Your task to perform on an android device: open app "PlayWell" Image 0: 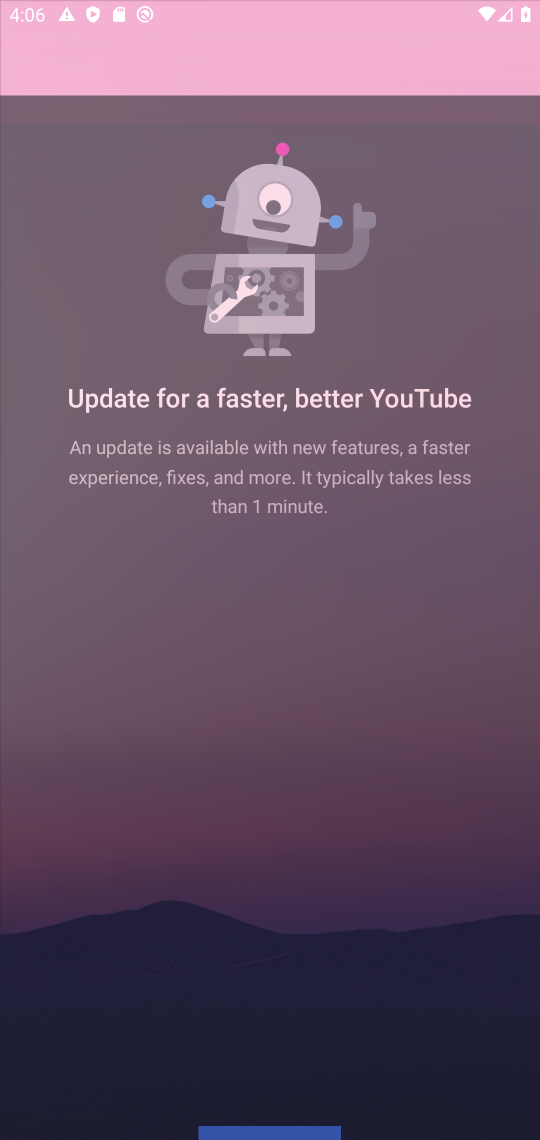
Step 0: drag from (242, 466) to (242, 134)
Your task to perform on an android device: open app "PlayWell" Image 1: 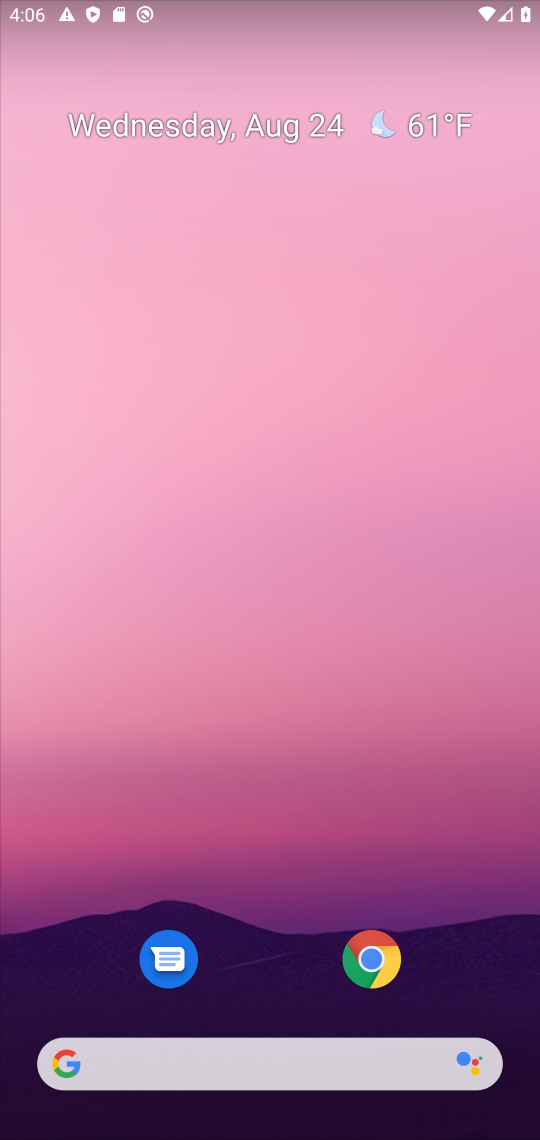
Step 1: drag from (304, 1025) to (267, 200)
Your task to perform on an android device: open app "PlayWell" Image 2: 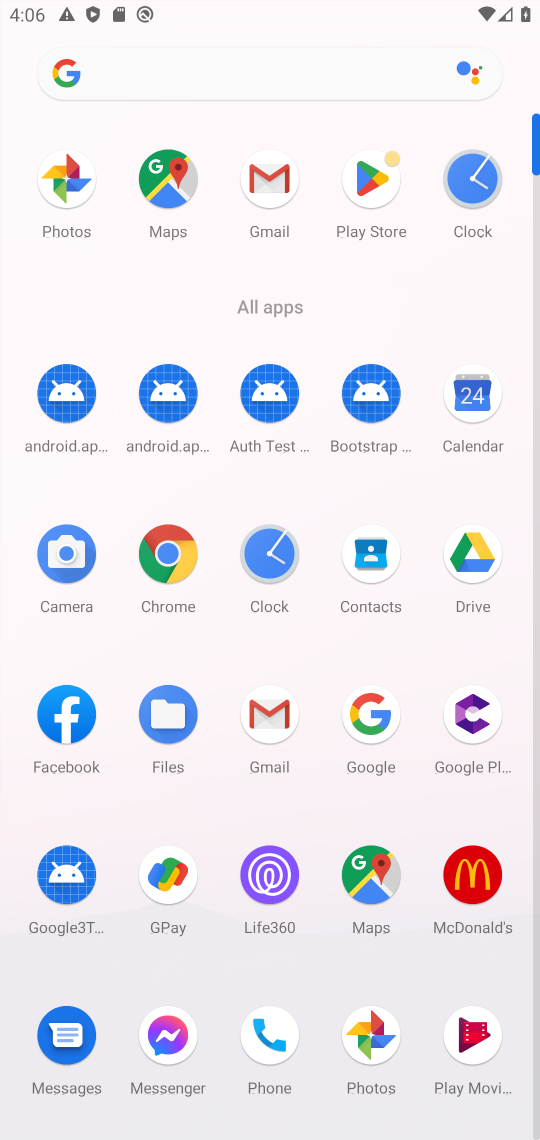
Step 2: click (347, 212)
Your task to perform on an android device: open app "PlayWell" Image 3: 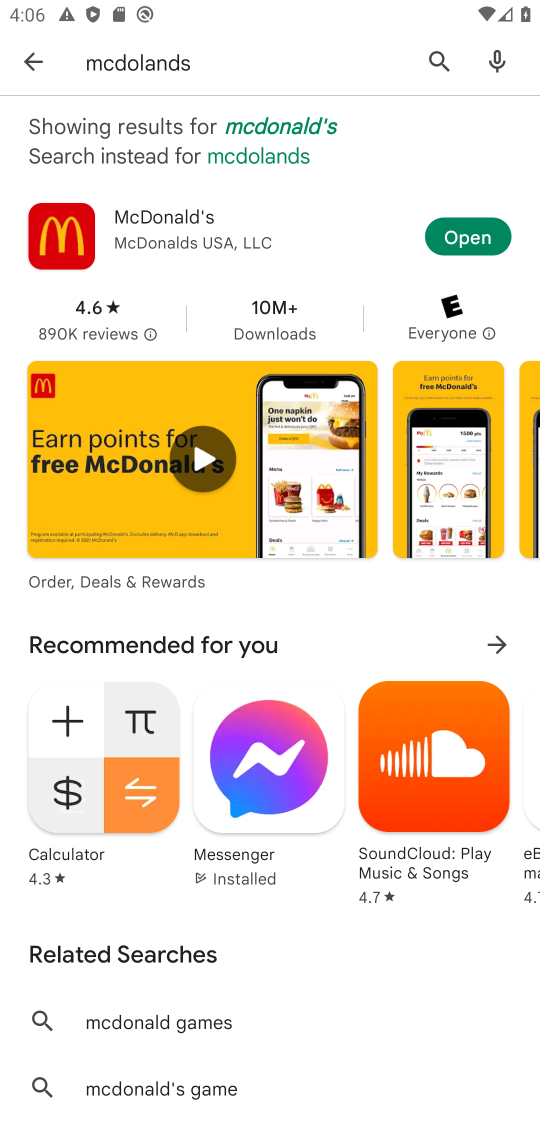
Step 3: click (441, 58)
Your task to perform on an android device: open app "PlayWell" Image 4: 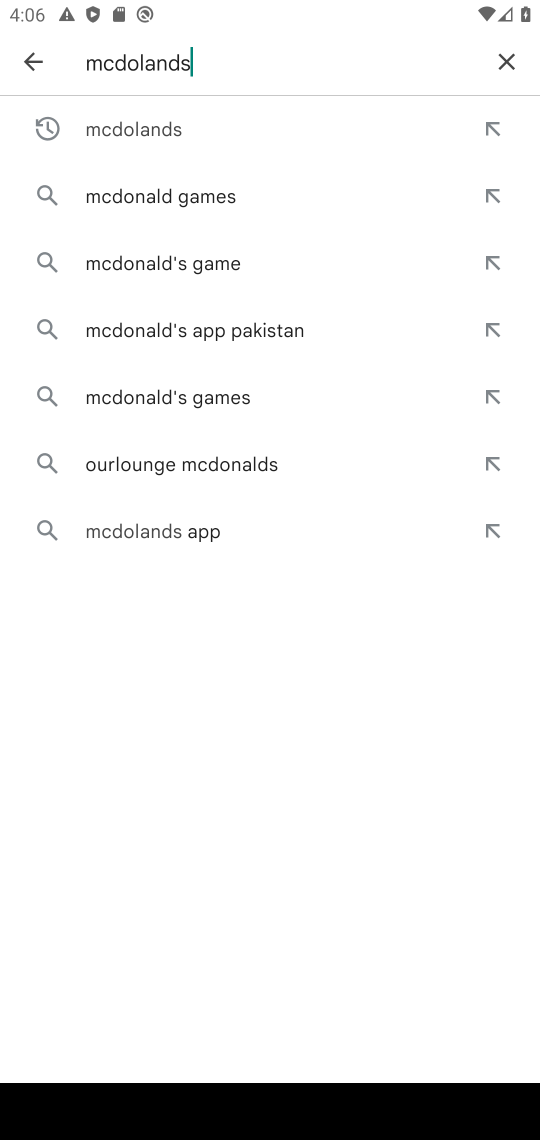
Step 4: click (503, 58)
Your task to perform on an android device: open app "PlayWell" Image 5: 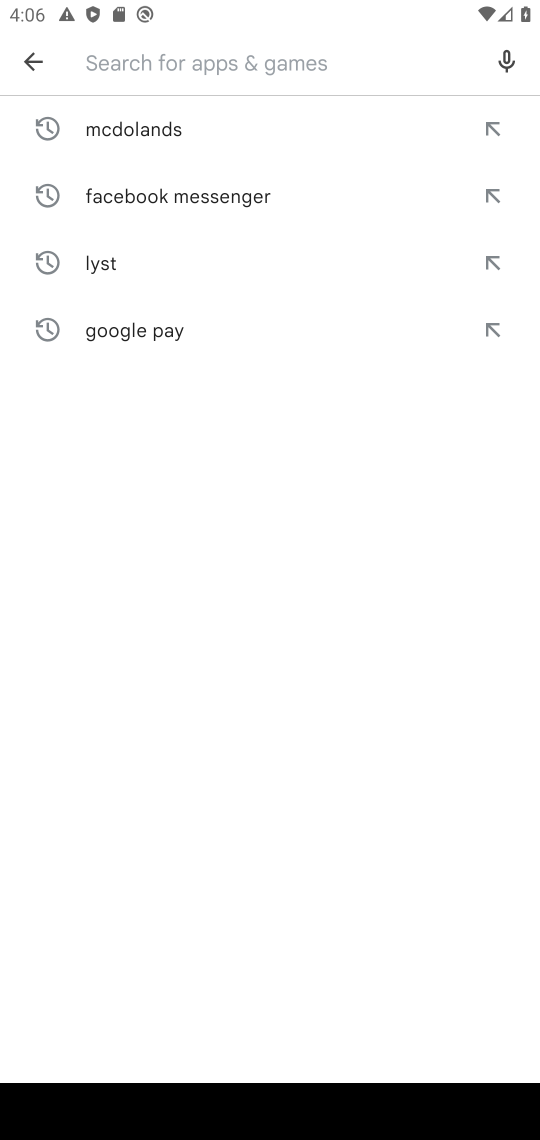
Step 5: type "playwell"
Your task to perform on an android device: open app "PlayWell" Image 6: 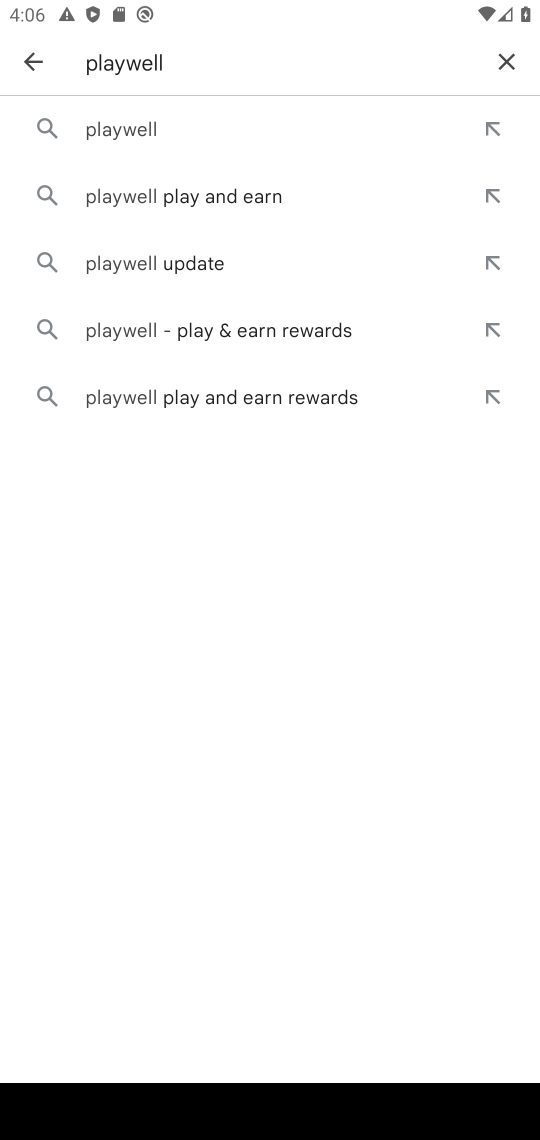
Step 6: click (294, 150)
Your task to perform on an android device: open app "PlayWell" Image 7: 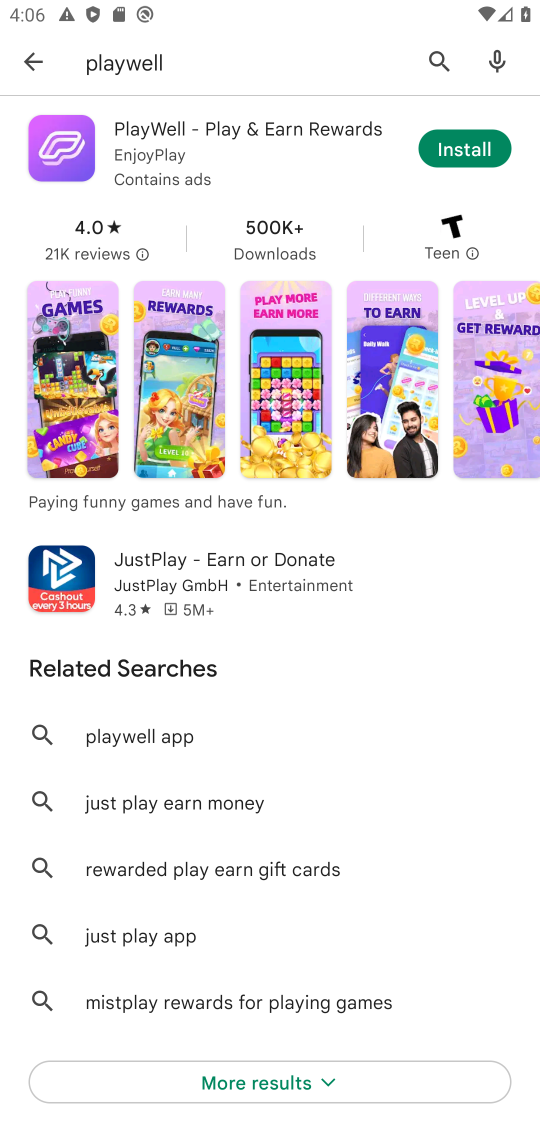
Step 7: click (460, 158)
Your task to perform on an android device: open app "PlayWell" Image 8: 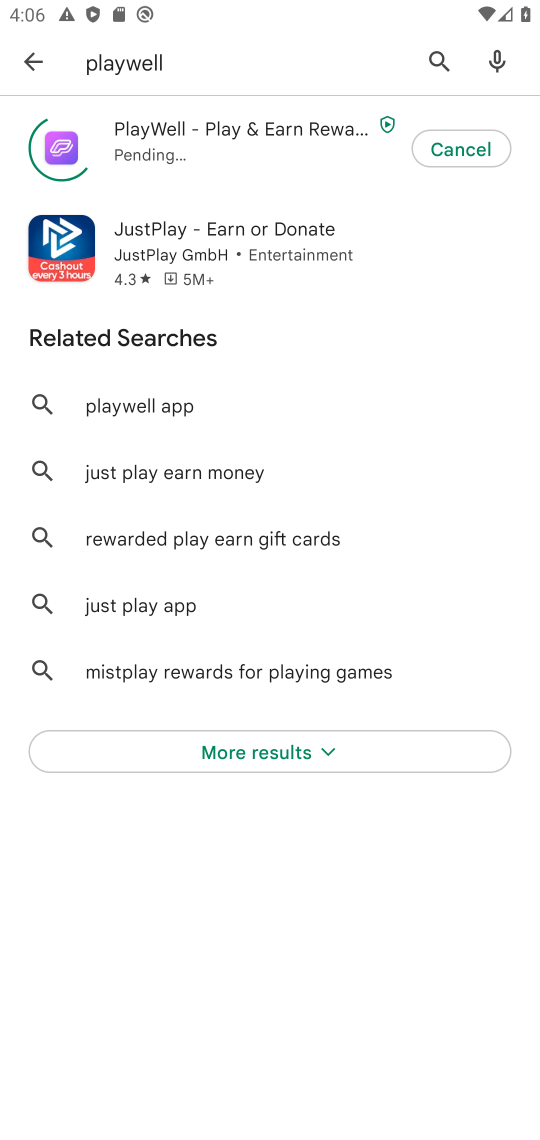
Step 8: task complete